Your task to perform on an android device: Open Amazon Image 0: 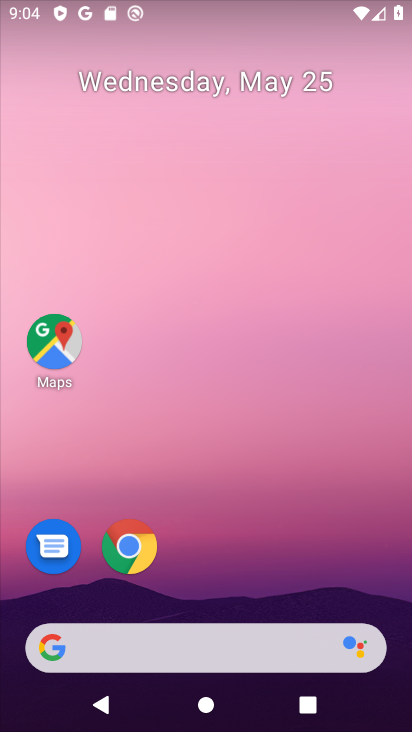
Step 0: click (128, 556)
Your task to perform on an android device: Open Amazon Image 1: 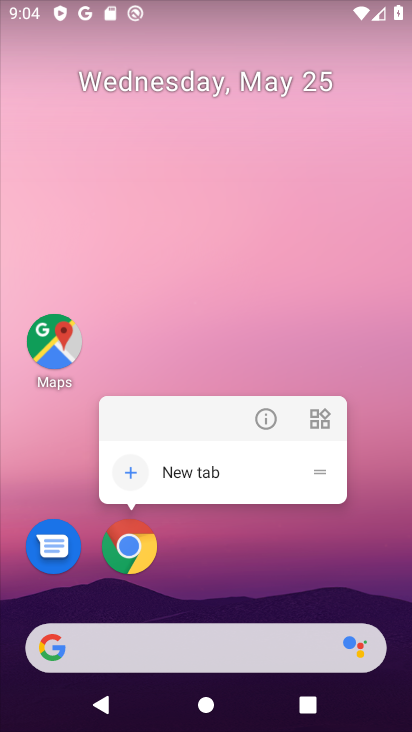
Step 1: click (135, 558)
Your task to perform on an android device: Open Amazon Image 2: 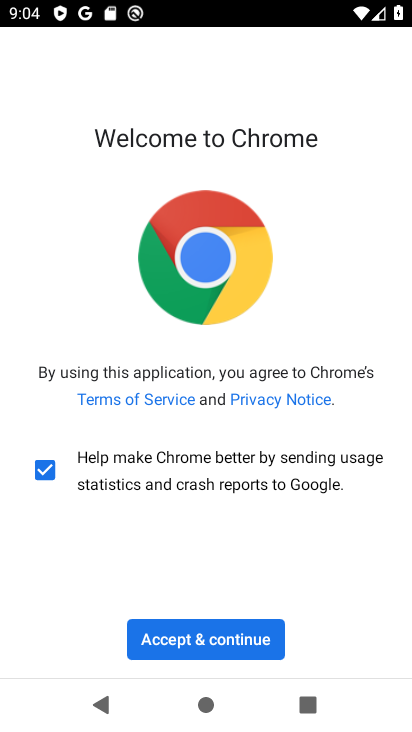
Step 2: click (269, 654)
Your task to perform on an android device: Open Amazon Image 3: 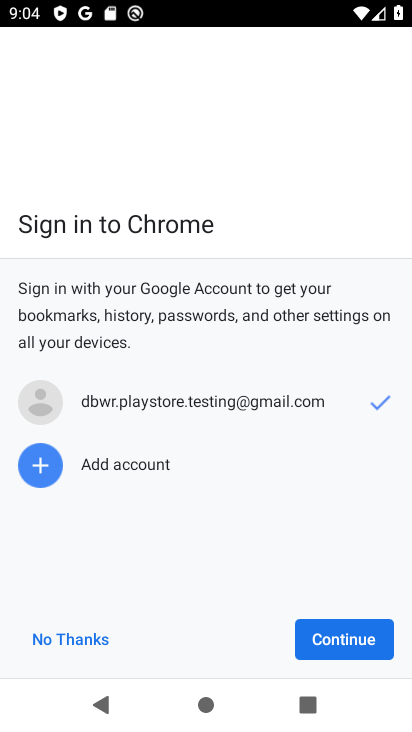
Step 3: click (369, 654)
Your task to perform on an android device: Open Amazon Image 4: 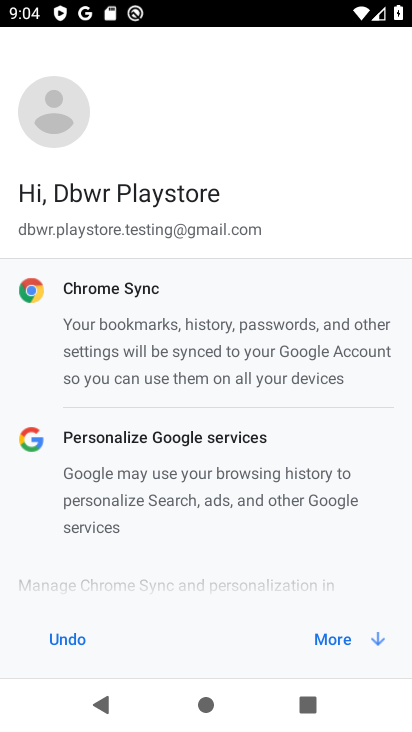
Step 4: click (368, 655)
Your task to perform on an android device: Open Amazon Image 5: 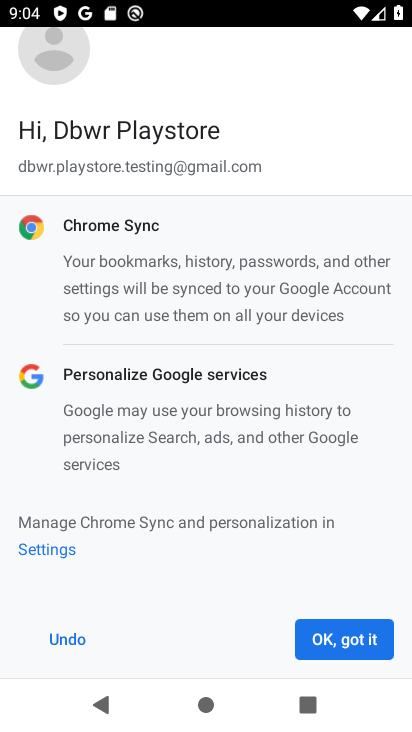
Step 5: click (368, 655)
Your task to perform on an android device: Open Amazon Image 6: 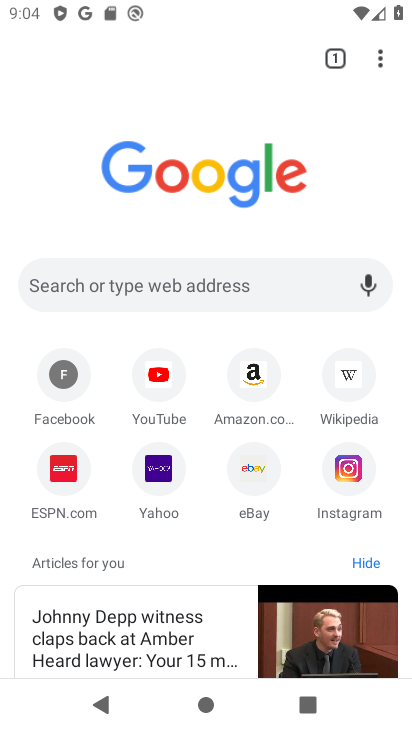
Step 6: click (263, 363)
Your task to perform on an android device: Open Amazon Image 7: 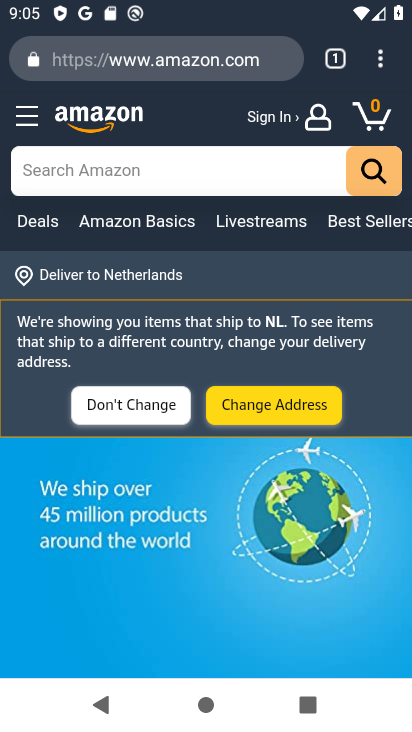
Step 7: task complete